Your task to perform on an android device: Open Youtube and go to "Your channel" Image 0: 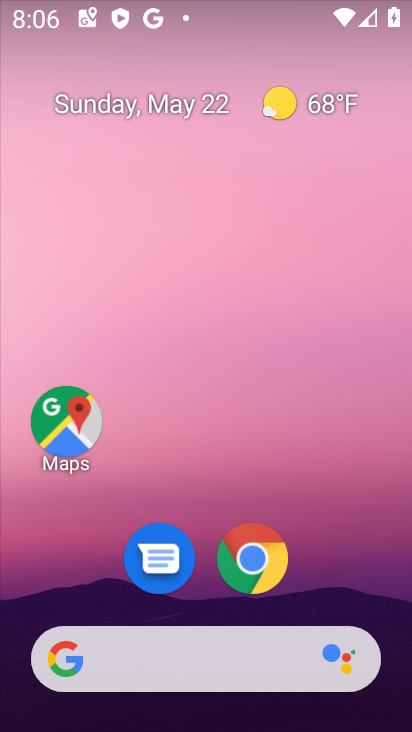
Step 0: drag from (324, 605) to (283, 267)
Your task to perform on an android device: Open Youtube and go to "Your channel" Image 1: 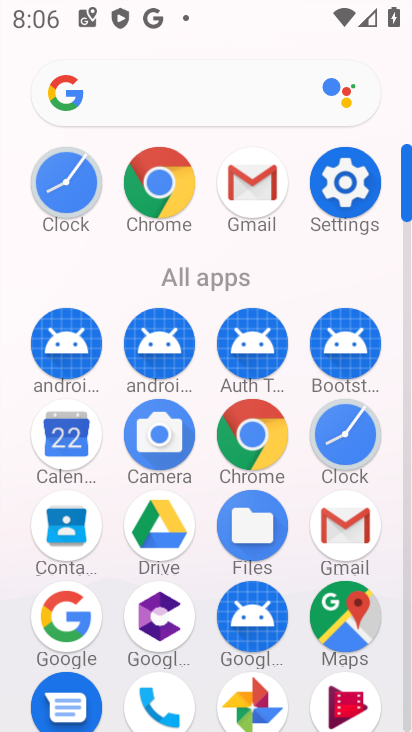
Step 1: drag from (325, 687) to (378, 178)
Your task to perform on an android device: Open Youtube and go to "Your channel" Image 2: 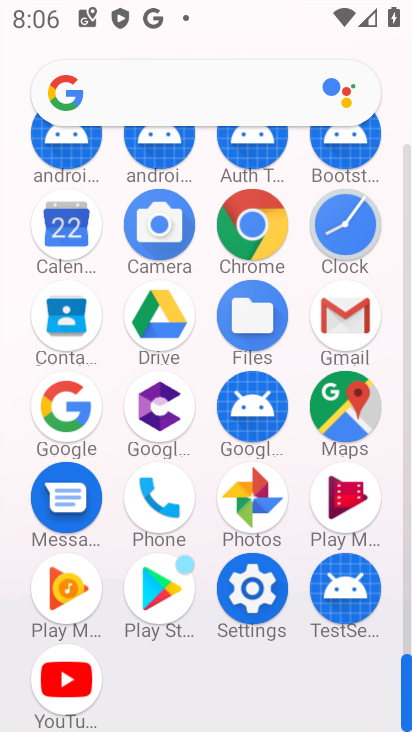
Step 2: click (76, 662)
Your task to perform on an android device: Open Youtube and go to "Your channel" Image 3: 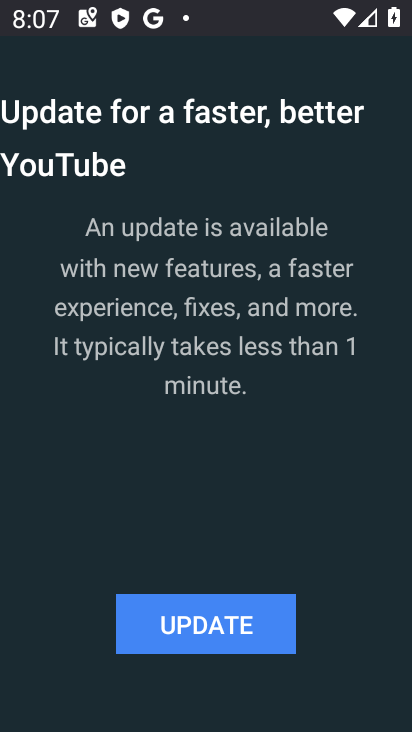
Step 3: task complete